Your task to perform on an android device: Show the shopping cart on amazon. Add "logitech g pro" to the cart on amazon, then select checkout. Image 0: 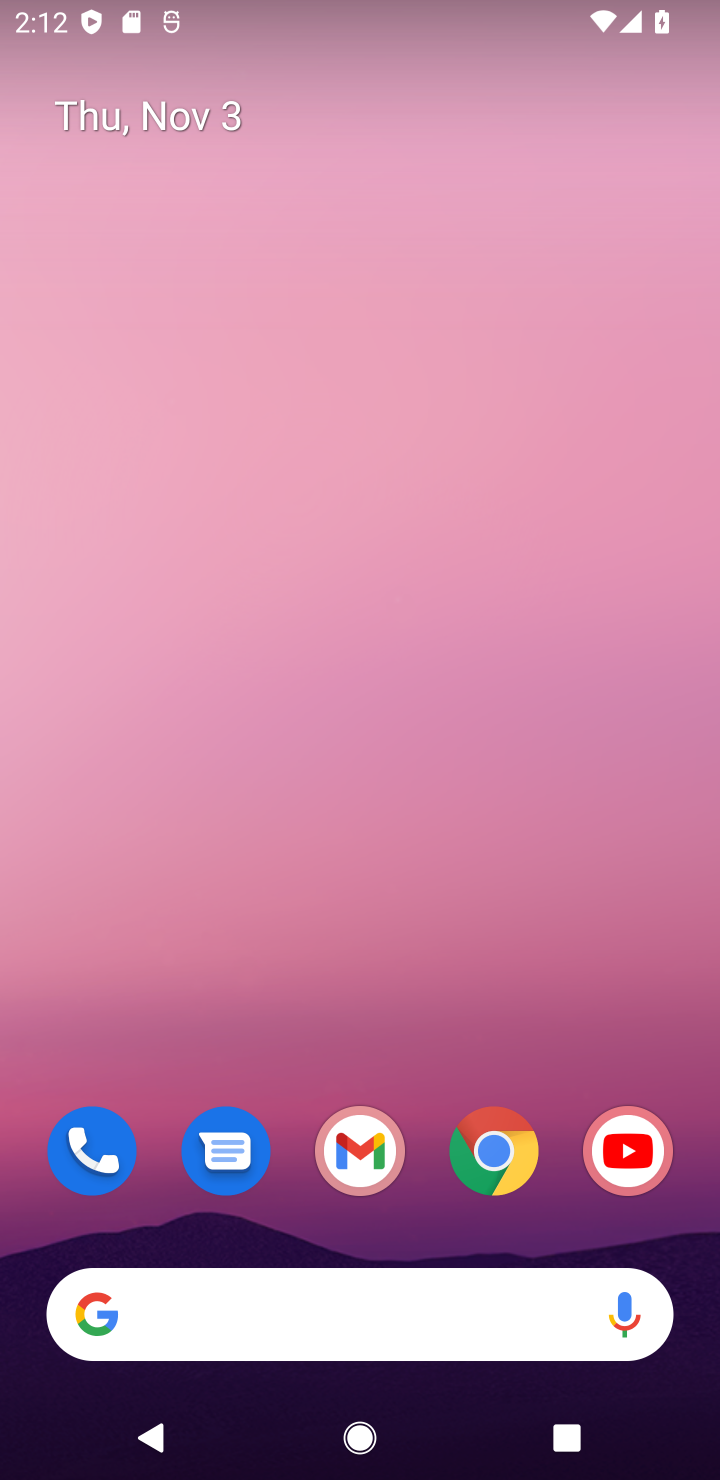
Step 0: click (481, 1162)
Your task to perform on an android device: Show the shopping cart on amazon. Add "logitech g pro" to the cart on amazon, then select checkout. Image 1: 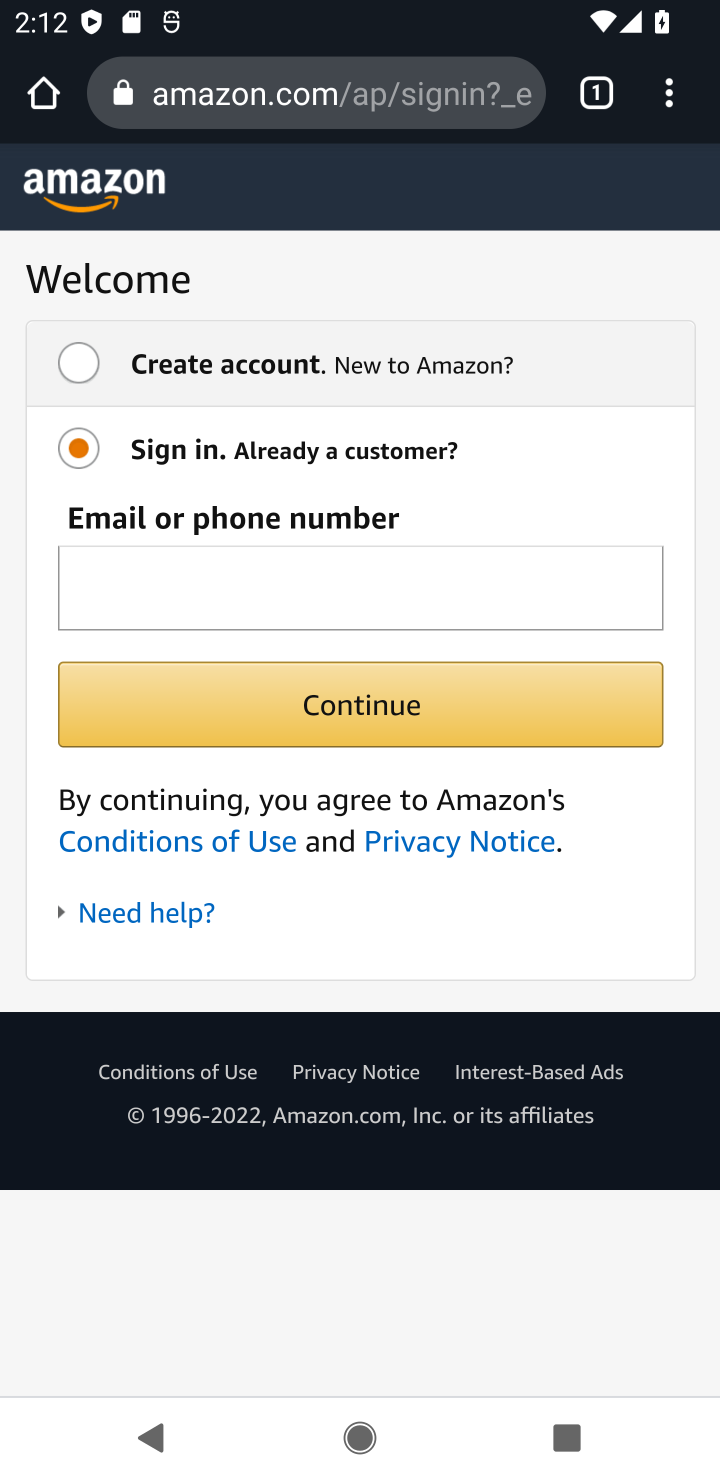
Step 1: press back button
Your task to perform on an android device: Show the shopping cart on amazon. Add "logitech g pro" to the cart on amazon, then select checkout. Image 2: 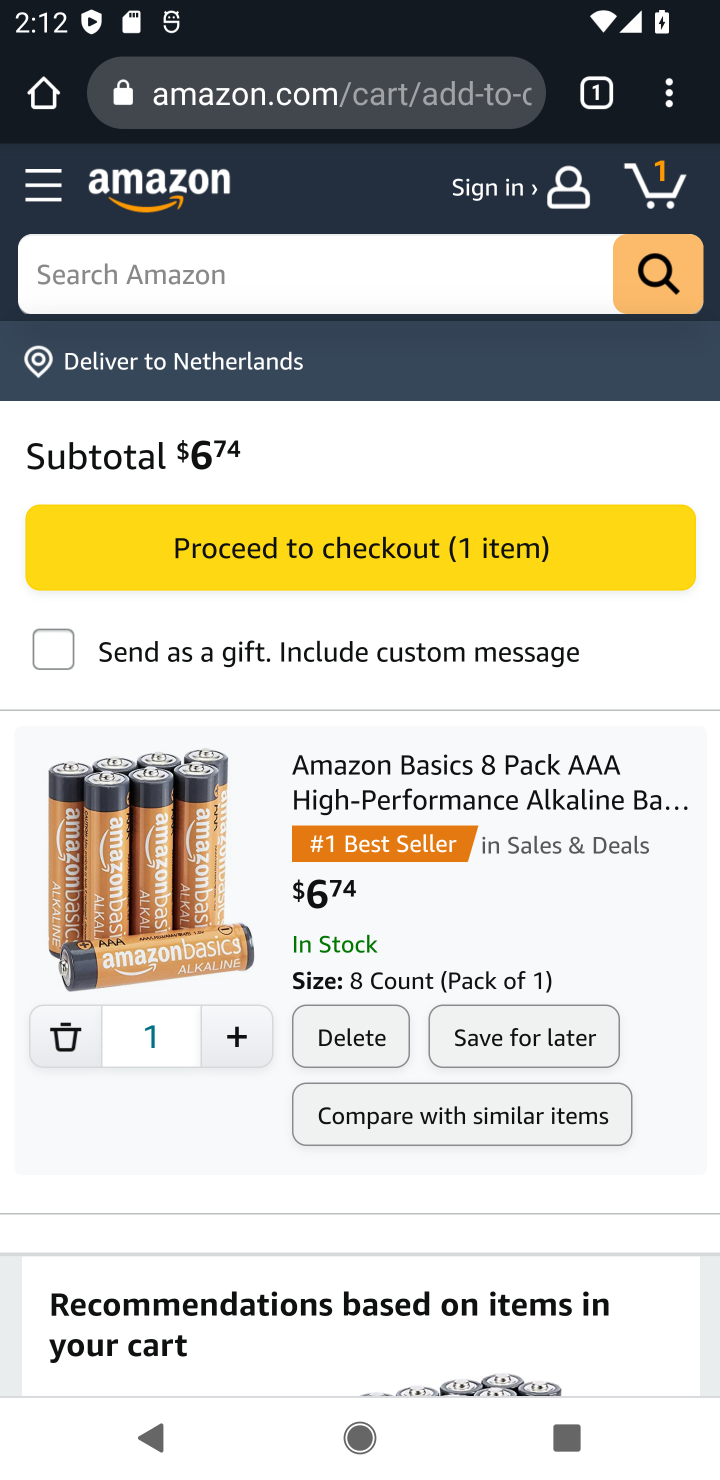
Step 2: click (415, 282)
Your task to perform on an android device: Show the shopping cart on amazon. Add "logitech g pro" to the cart on amazon, then select checkout. Image 3: 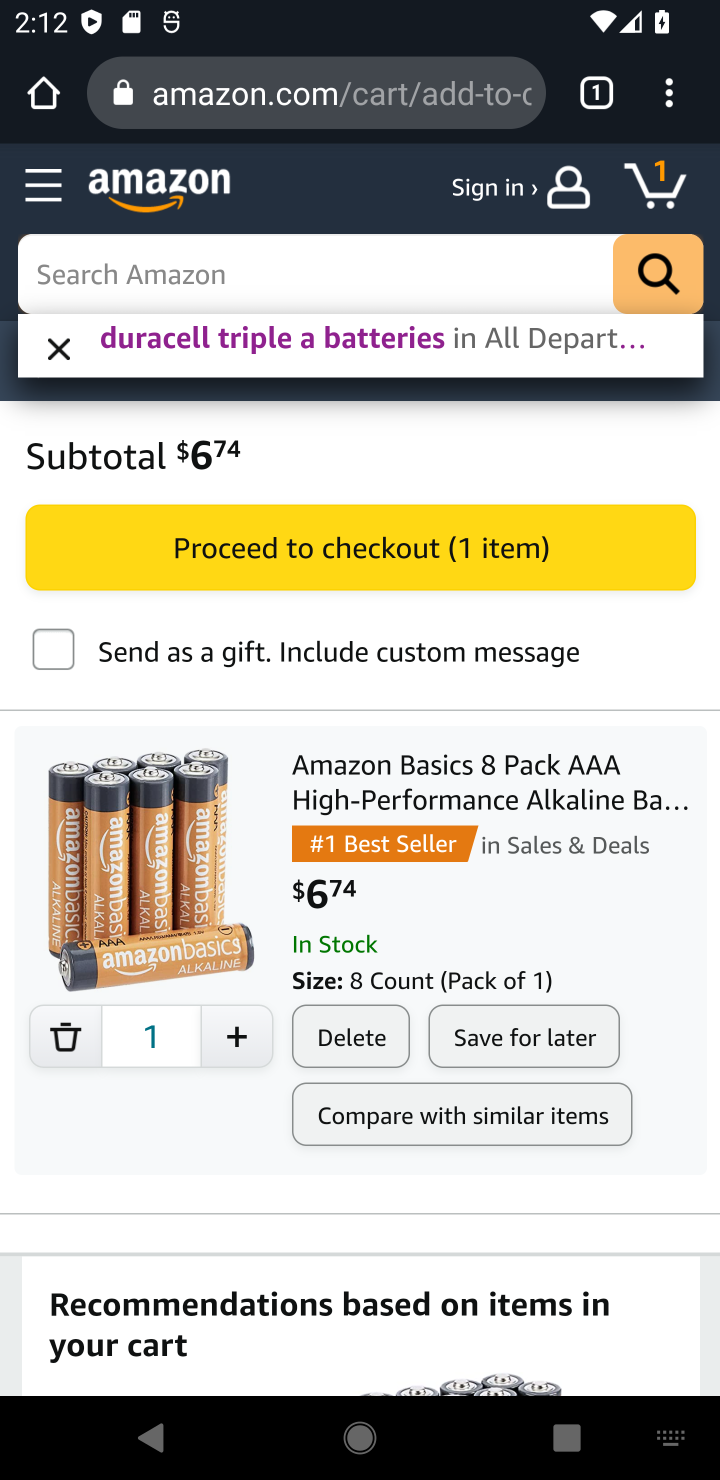
Step 3: type "logitech g pro"
Your task to perform on an android device: Show the shopping cart on amazon. Add "logitech g pro" to the cart on amazon, then select checkout. Image 4: 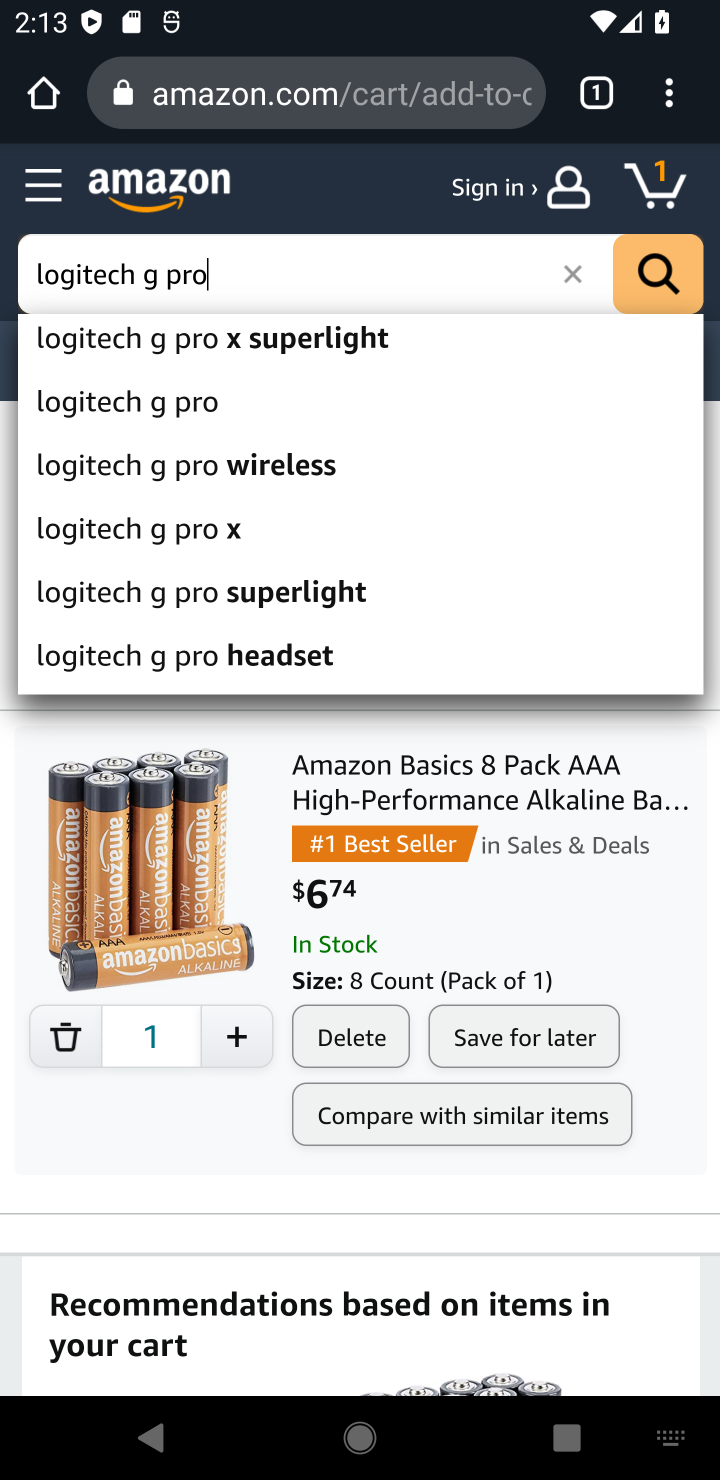
Step 4: click (166, 404)
Your task to perform on an android device: Show the shopping cart on amazon. Add "logitech g pro" to the cart on amazon, then select checkout. Image 5: 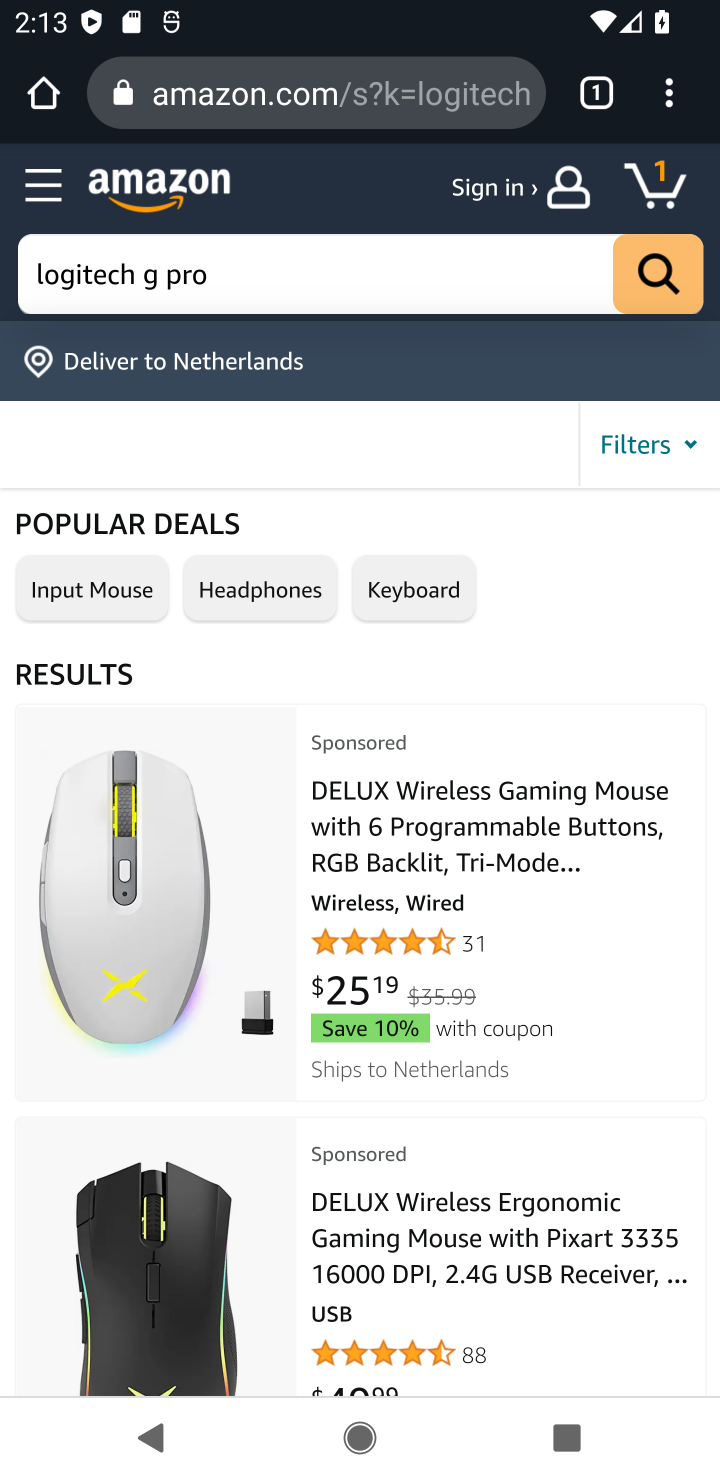
Step 5: click (417, 820)
Your task to perform on an android device: Show the shopping cart on amazon. Add "logitech g pro" to the cart on amazon, then select checkout. Image 6: 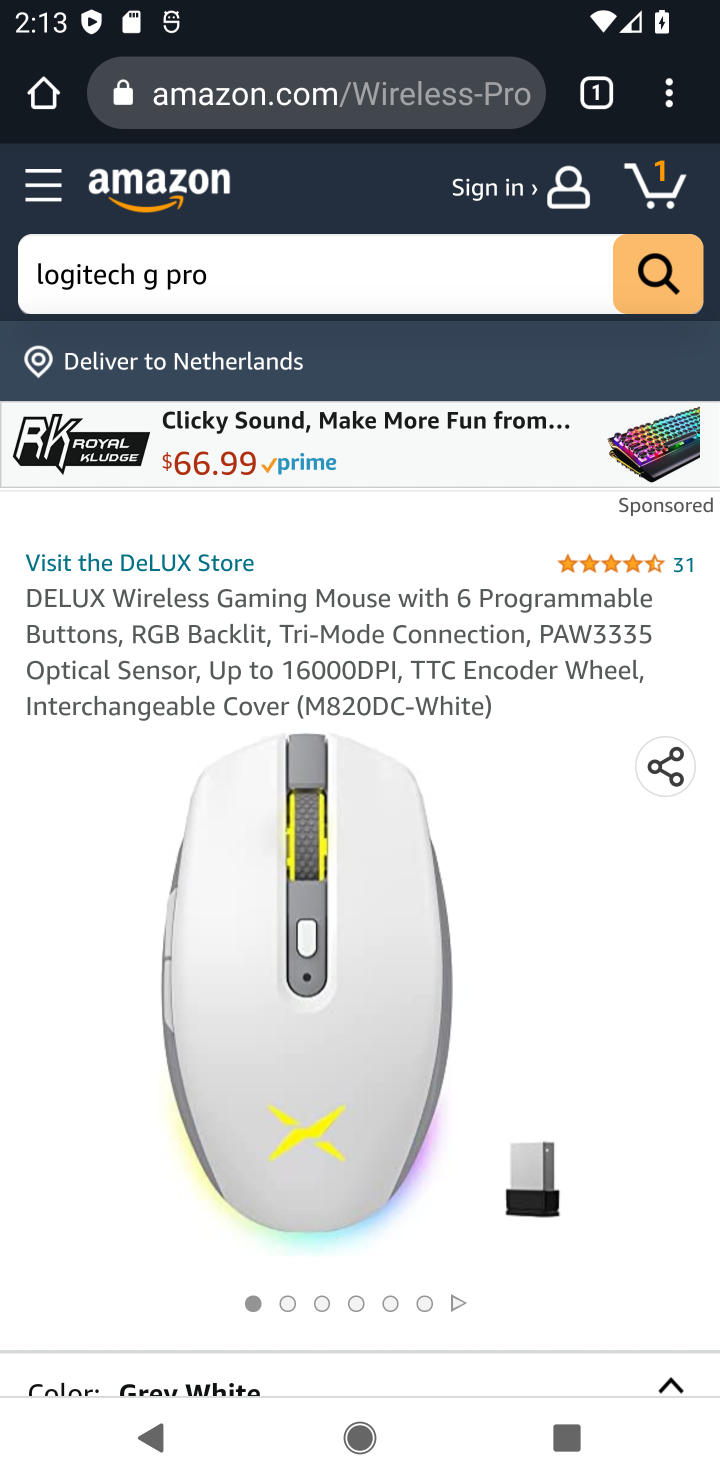
Step 6: drag from (258, 1215) to (419, 477)
Your task to perform on an android device: Show the shopping cart on amazon. Add "logitech g pro" to the cart on amazon, then select checkout. Image 7: 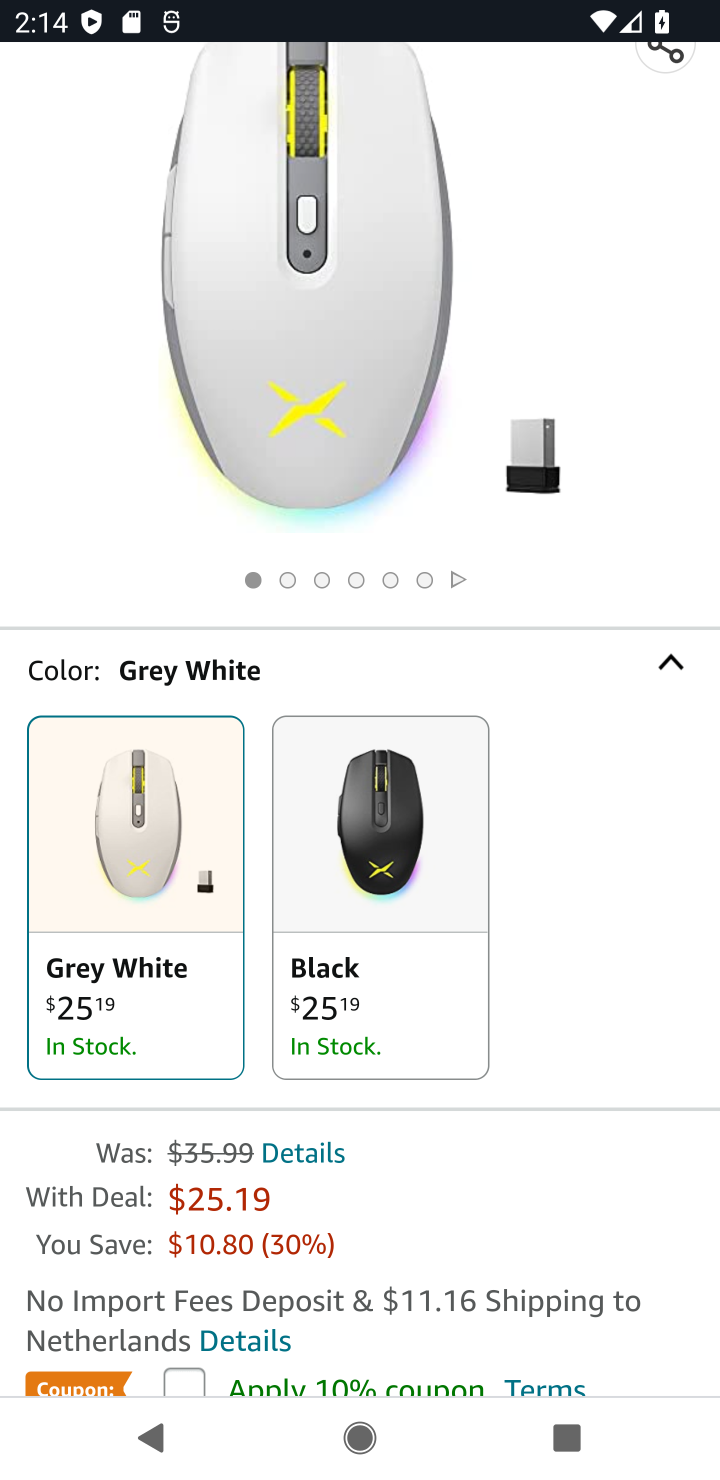
Step 7: drag from (458, 1261) to (424, 403)
Your task to perform on an android device: Show the shopping cart on amazon. Add "logitech g pro" to the cart on amazon, then select checkout. Image 8: 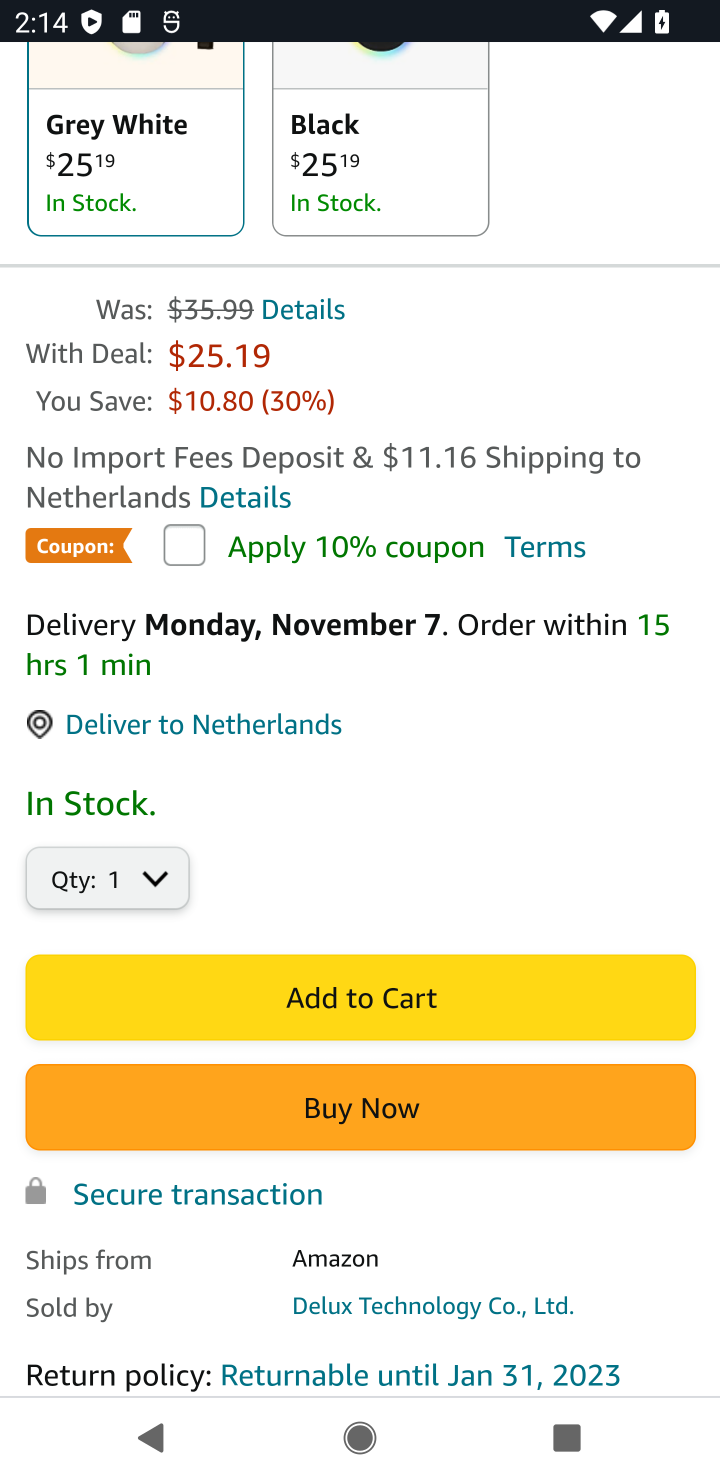
Step 8: click (406, 1001)
Your task to perform on an android device: Show the shopping cart on amazon. Add "logitech g pro" to the cart on amazon, then select checkout. Image 9: 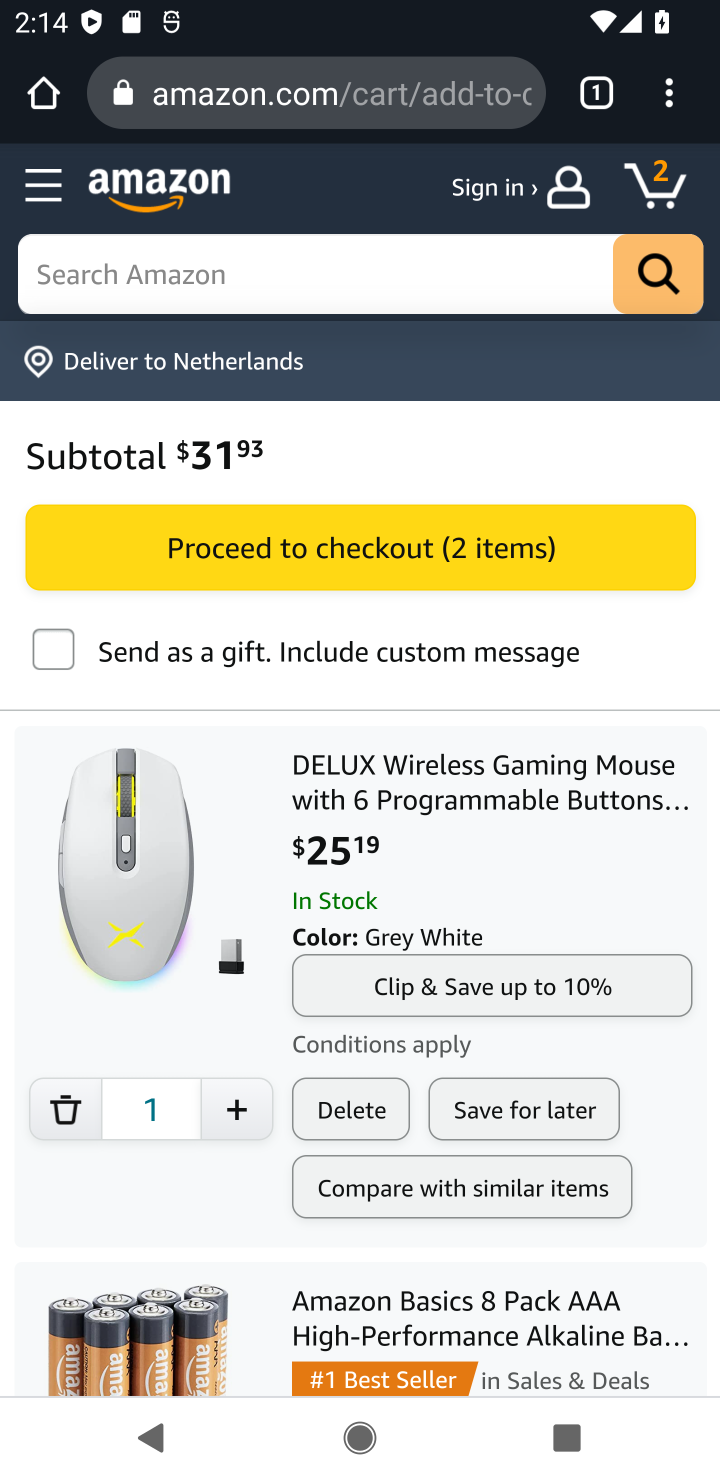
Step 9: click (346, 563)
Your task to perform on an android device: Show the shopping cart on amazon. Add "logitech g pro" to the cart on amazon, then select checkout. Image 10: 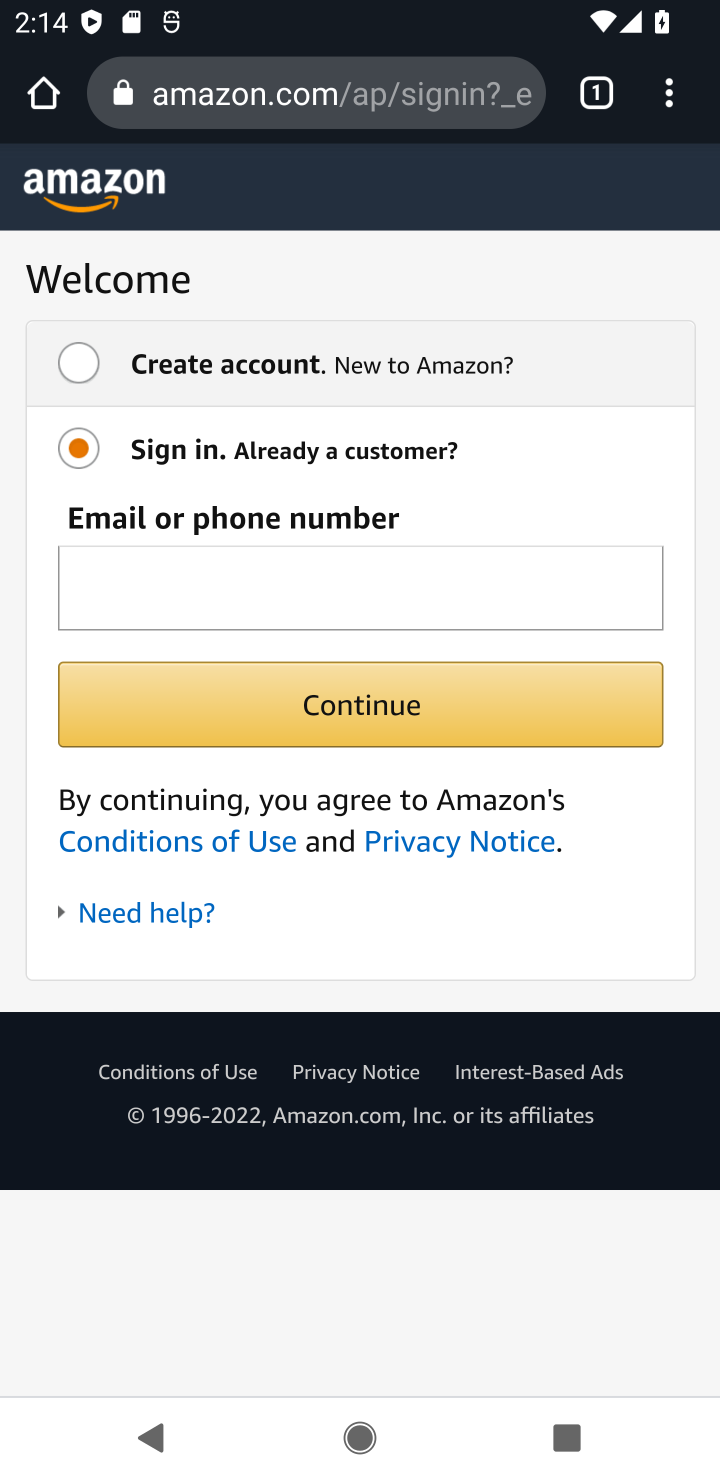
Step 10: task complete